Your task to perform on an android device: open a bookmark in the chrome app Image 0: 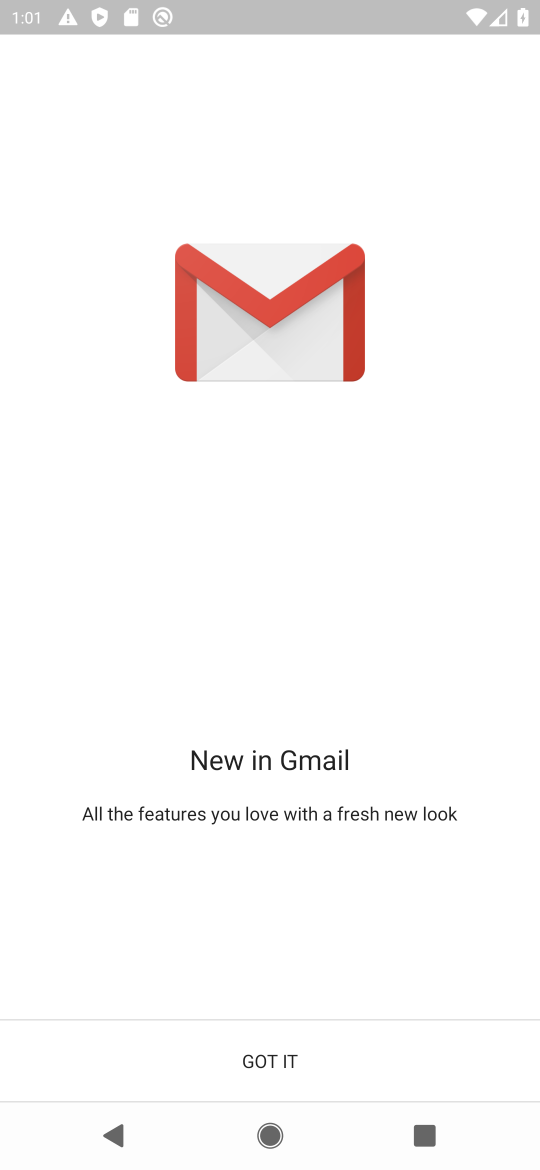
Step 0: press home button
Your task to perform on an android device: open a bookmark in the chrome app Image 1: 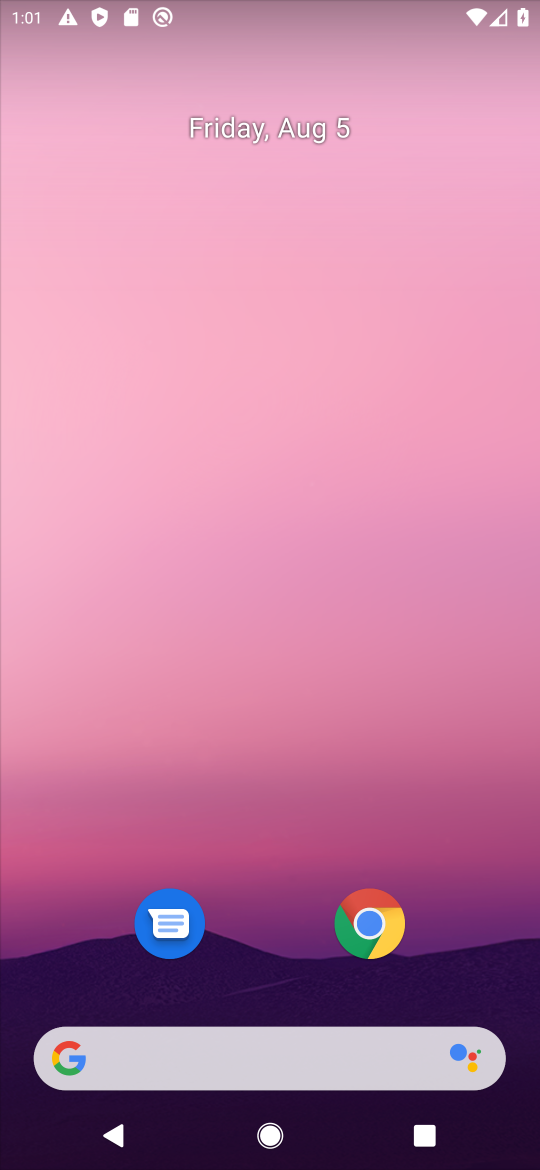
Step 1: drag from (343, 1048) to (493, 824)
Your task to perform on an android device: open a bookmark in the chrome app Image 2: 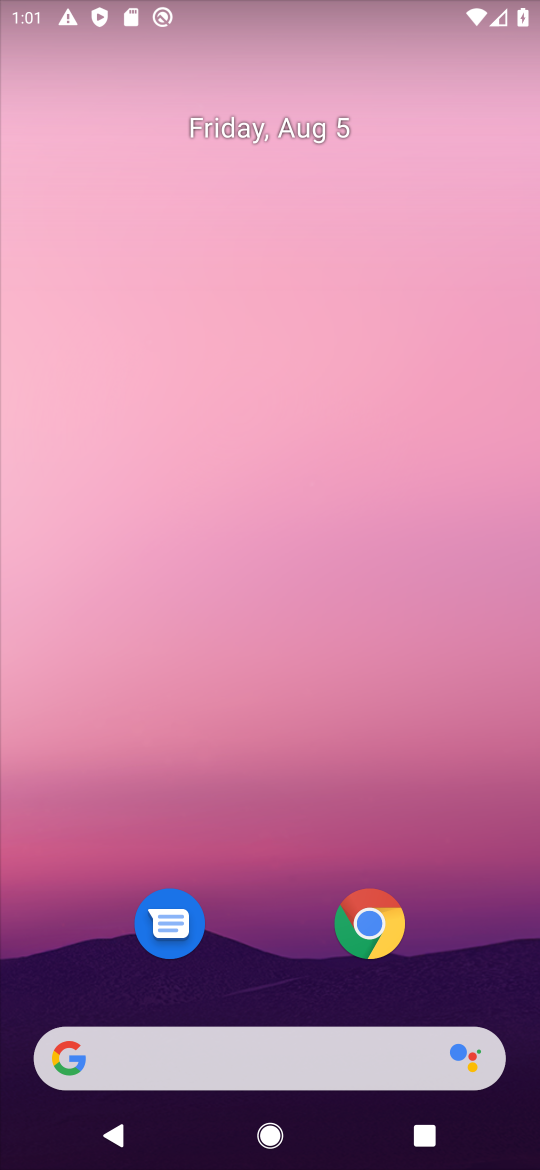
Step 2: click (165, 595)
Your task to perform on an android device: open a bookmark in the chrome app Image 3: 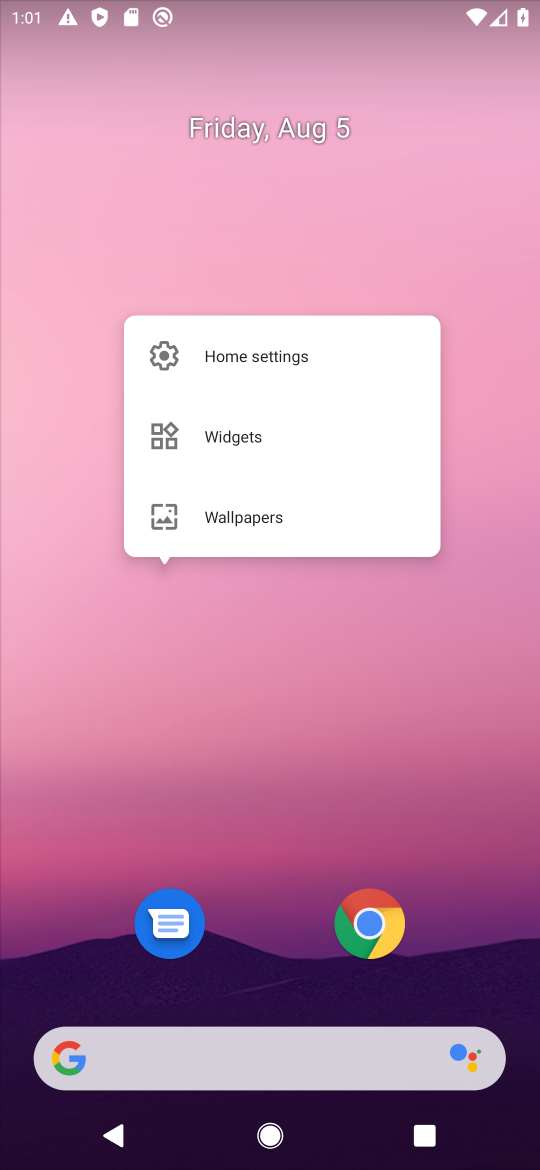
Step 3: click (291, 767)
Your task to perform on an android device: open a bookmark in the chrome app Image 4: 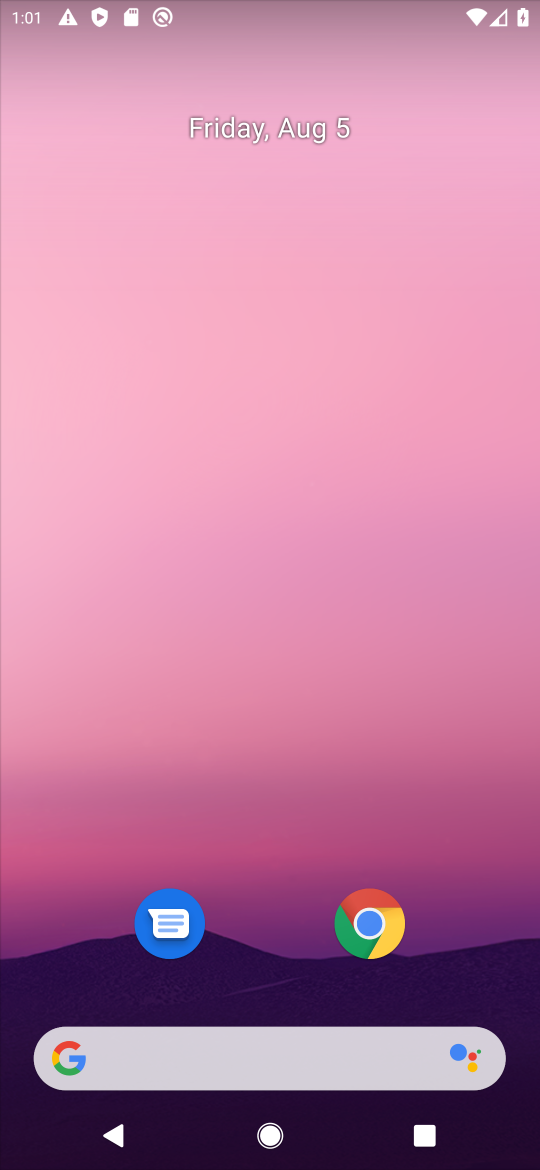
Step 4: click (378, 927)
Your task to perform on an android device: open a bookmark in the chrome app Image 5: 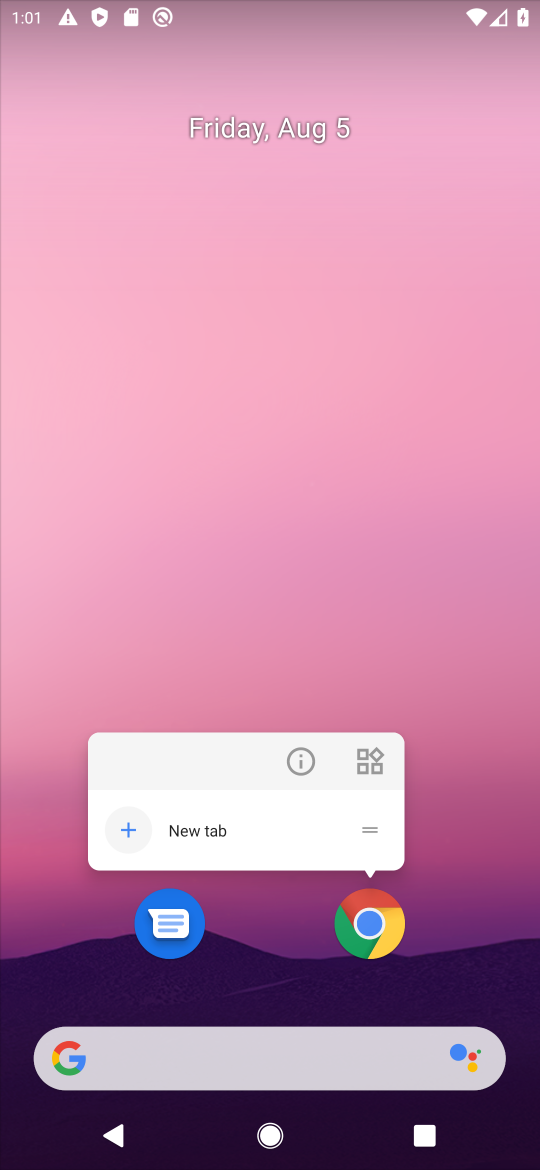
Step 5: click (377, 925)
Your task to perform on an android device: open a bookmark in the chrome app Image 6: 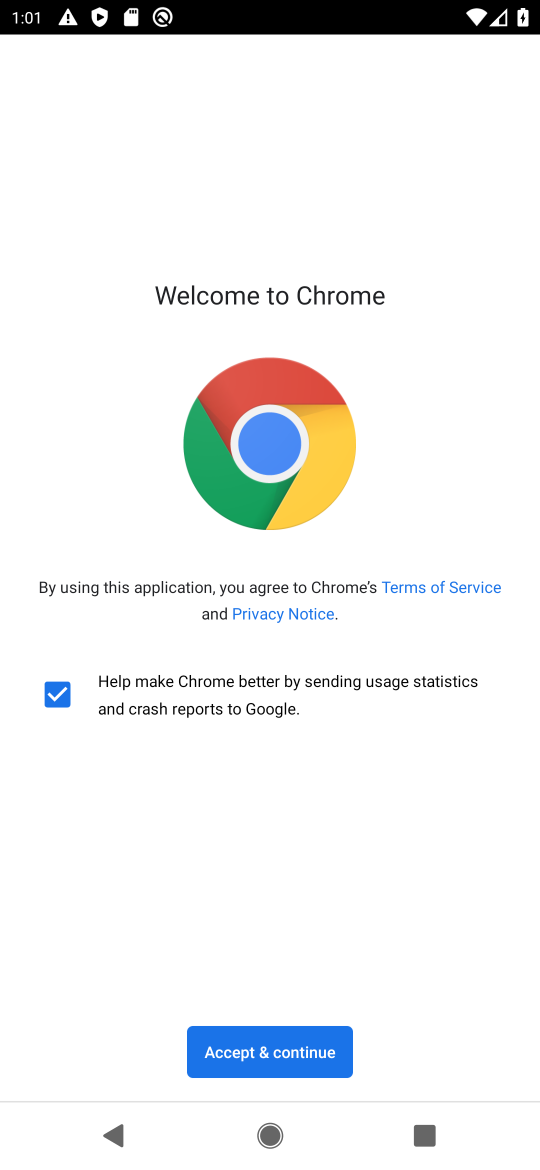
Step 6: click (248, 1064)
Your task to perform on an android device: open a bookmark in the chrome app Image 7: 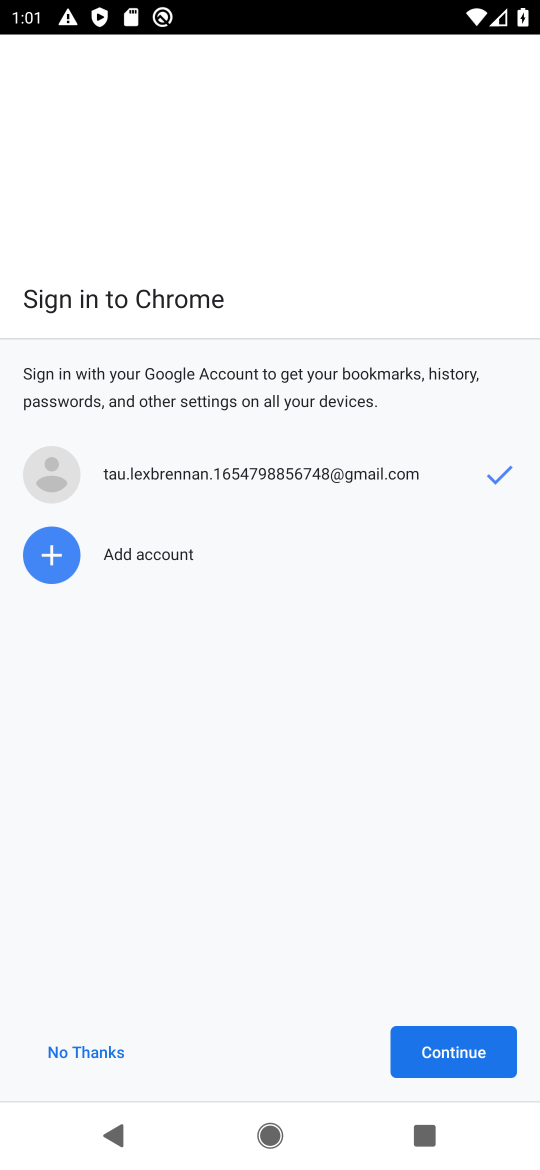
Step 7: click (430, 1047)
Your task to perform on an android device: open a bookmark in the chrome app Image 8: 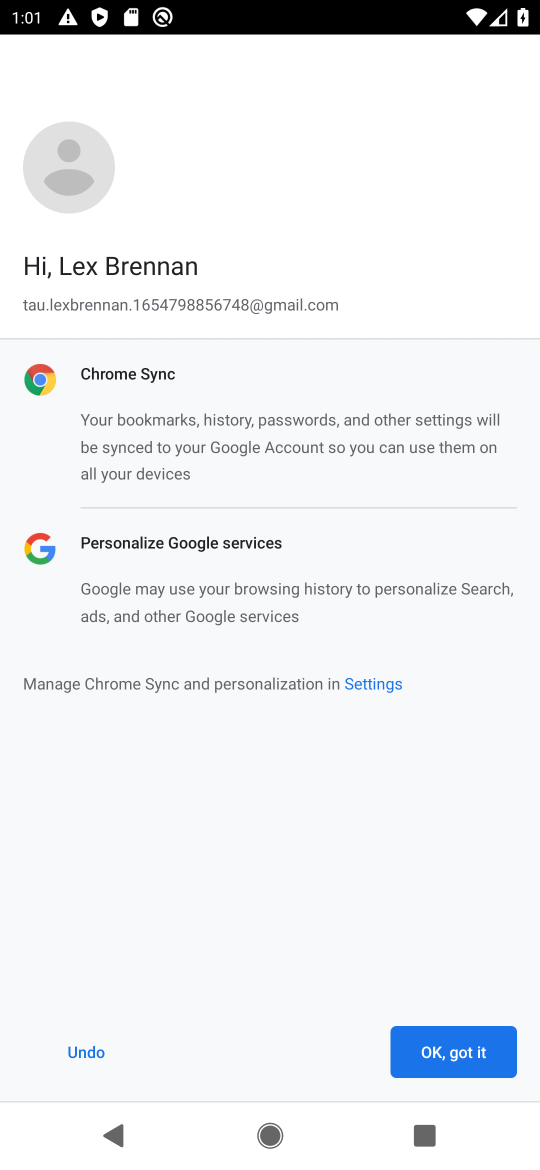
Step 8: click (437, 1052)
Your task to perform on an android device: open a bookmark in the chrome app Image 9: 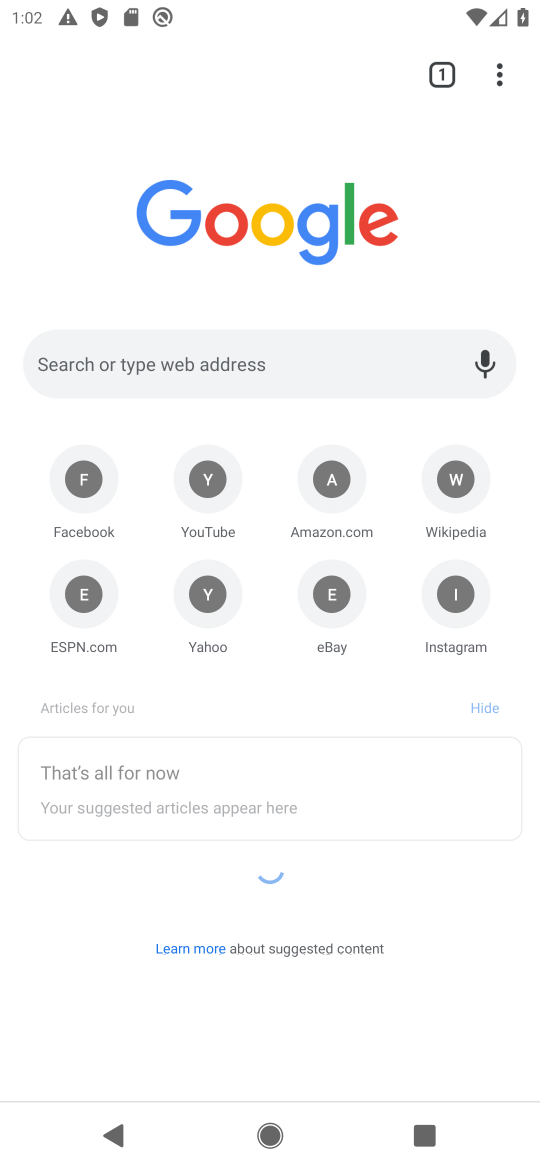
Step 9: task complete